Your task to perform on an android device: Go to settings Image 0: 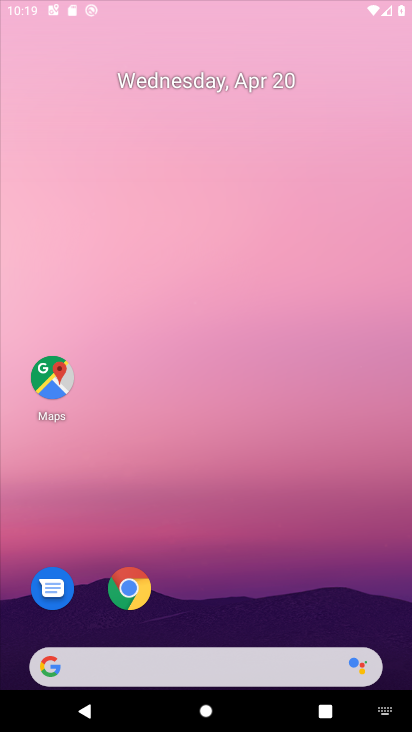
Step 0: click (263, 558)
Your task to perform on an android device: Go to settings Image 1: 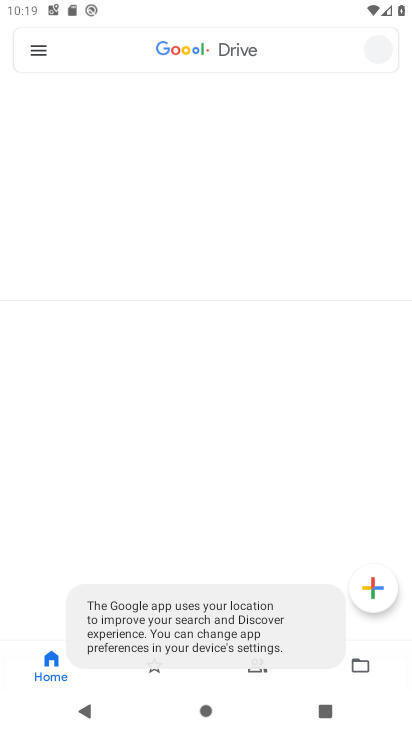
Step 1: drag from (239, 598) to (237, 201)
Your task to perform on an android device: Go to settings Image 2: 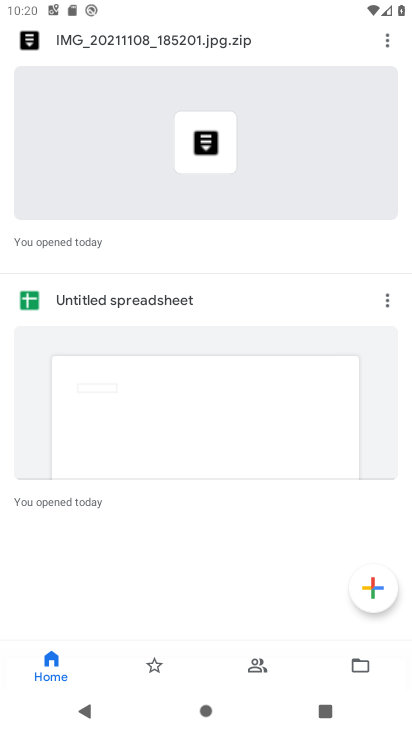
Step 2: press home button
Your task to perform on an android device: Go to settings Image 3: 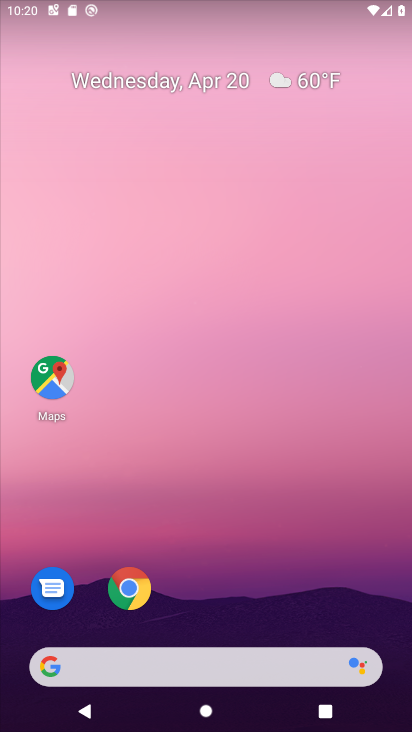
Step 3: drag from (200, 581) to (229, 36)
Your task to perform on an android device: Go to settings Image 4: 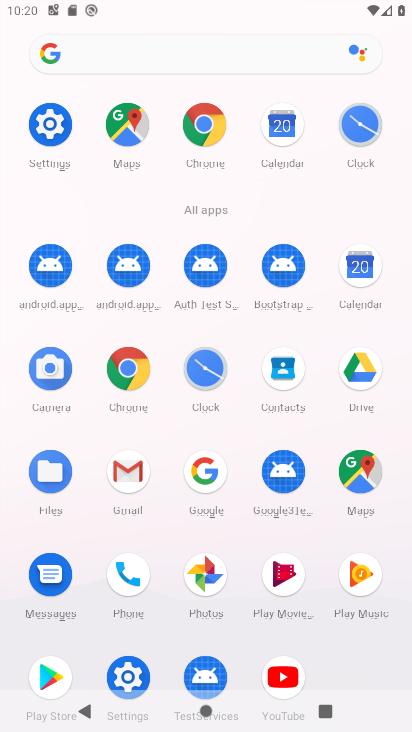
Step 4: click (47, 124)
Your task to perform on an android device: Go to settings Image 5: 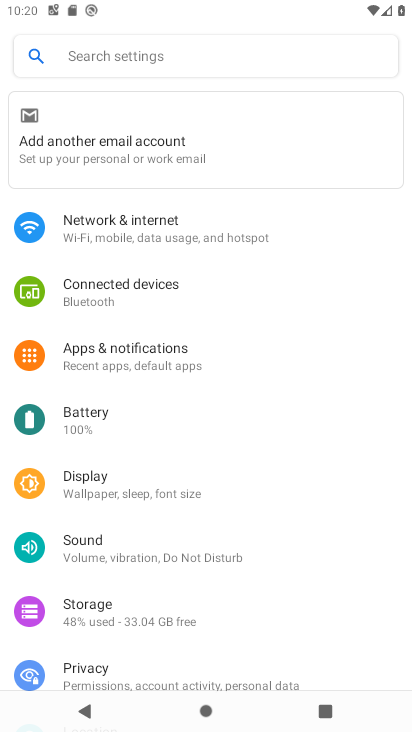
Step 5: task complete